Your task to perform on an android device: Search for Italian restaurants on Maps Image 0: 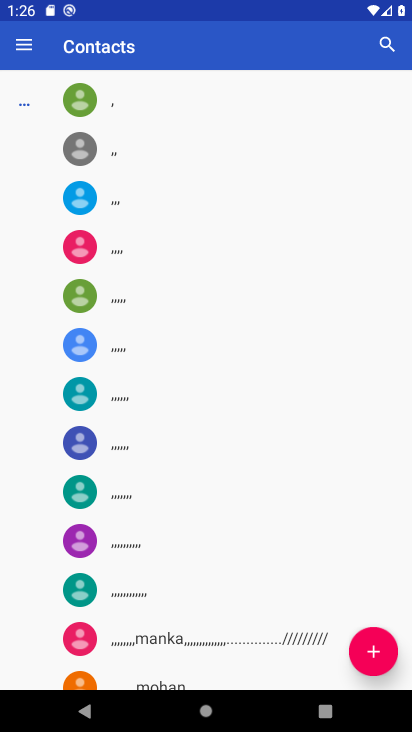
Step 0: press home button
Your task to perform on an android device: Search for Italian restaurants on Maps Image 1: 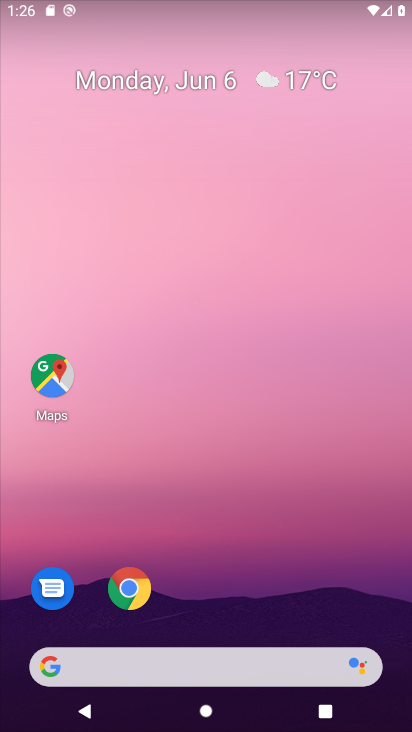
Step 1: click (58, 383)
Your task to perform on an android device: Search for Italian restaurants on Maps Image 2: 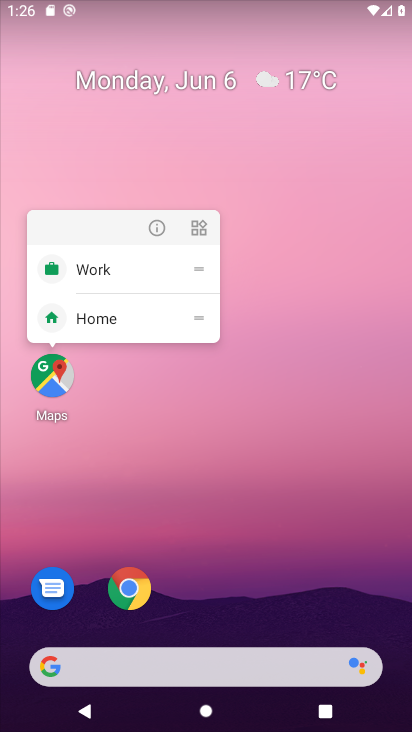
Step 2: click (36, 372)
Your task to perform on an android device: Search for Italian restaurants on Maps Image 3: 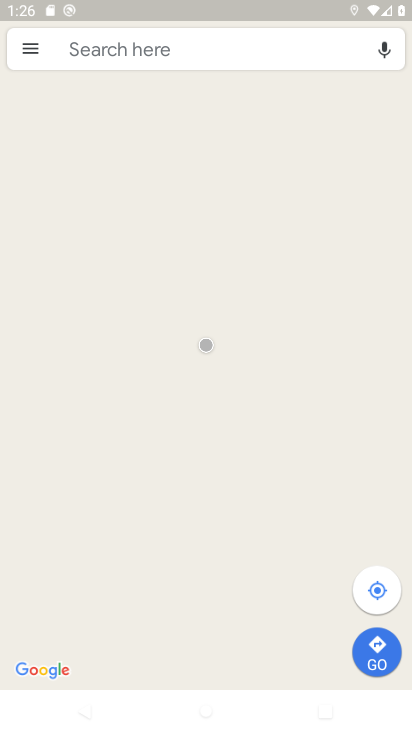
Step 3: click (152, 52)
Your task to perform on an android device: Search for Italian restaurants on Maps Image 4: 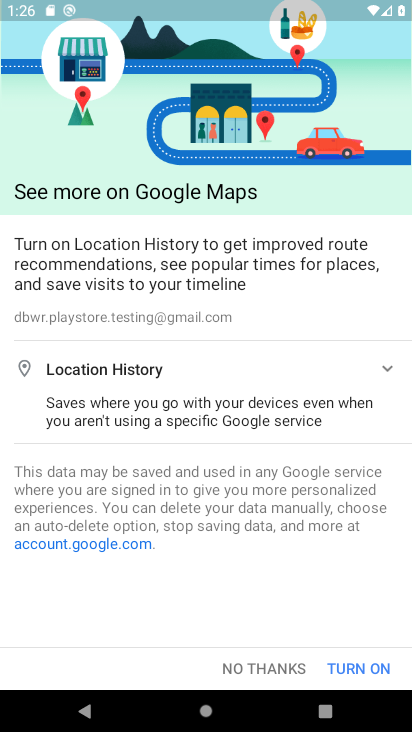
Step 4: click (276, 670)
Your task to perform on an android device: Search for Italian restaurants on Maps Image 5: 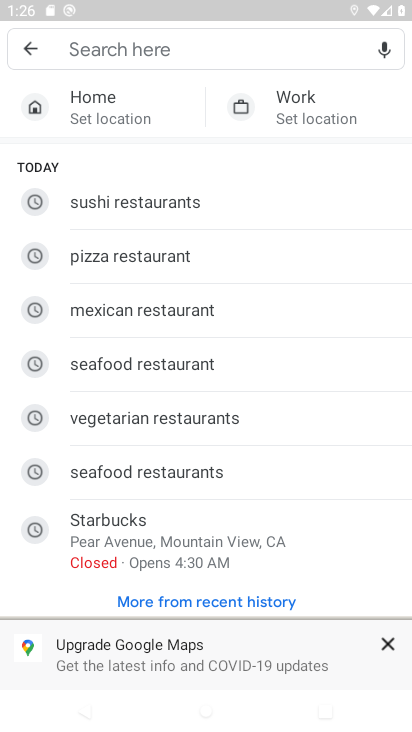
Step 5: click (179, 44)
Your task to perform on an android device: Search for Italian restaurants on Maps Image 6: 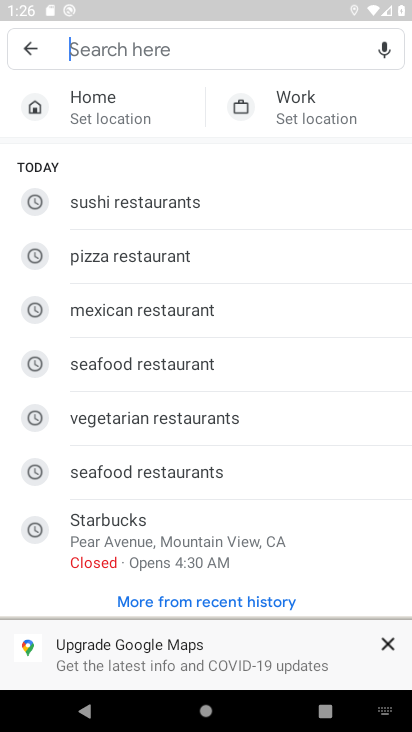
Step 6: type "italian"
Your task to perform on an android device: Search for Italian restaurants on Maps Image 7: 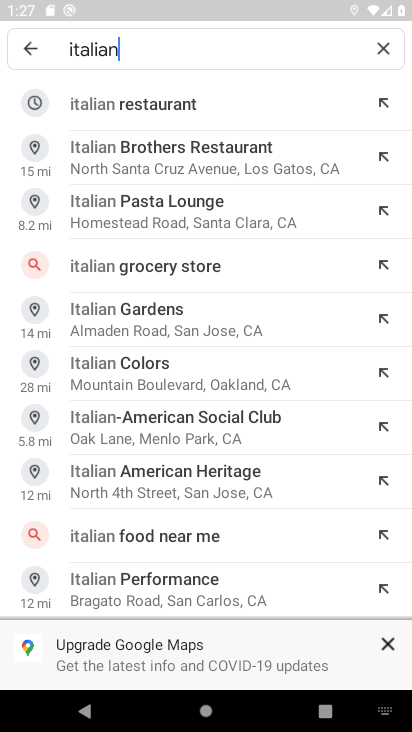
Step 7: click (232, 99)
Your task to perform on an android device: Search for Italian restaurants on Maps Image 8: 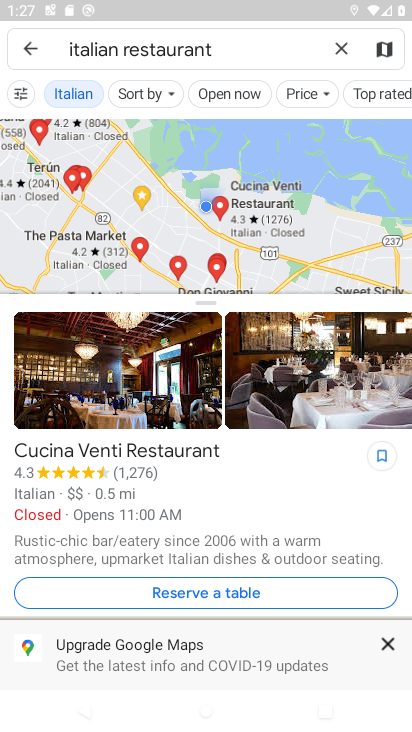
Step 8: task complete